Your task to perform on an android device: turn pop-ups off in chrome Image 0: 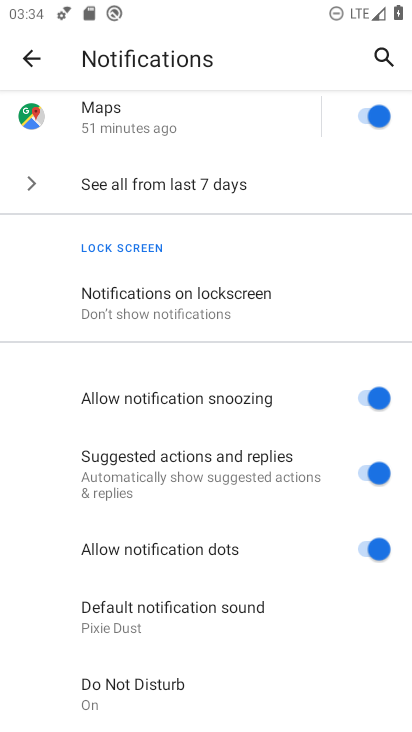
Step 0: press home button
Your task to perform on an android device: turn pop-ups off in chrome Image 1: 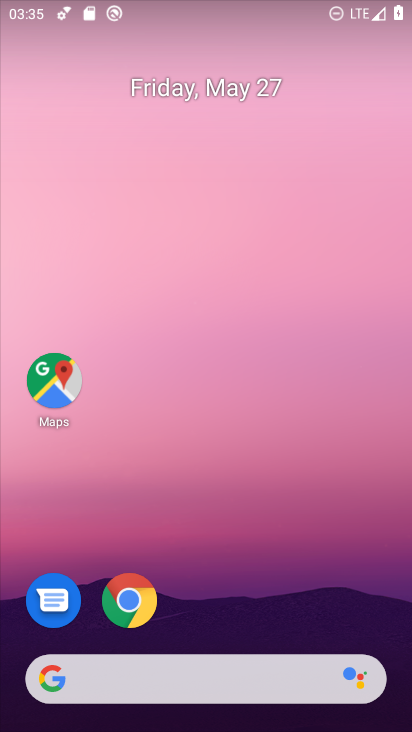
Step 1: click (129, 602)
Your task to perform on an android device: turn pop-ups off in chrome Image 2: 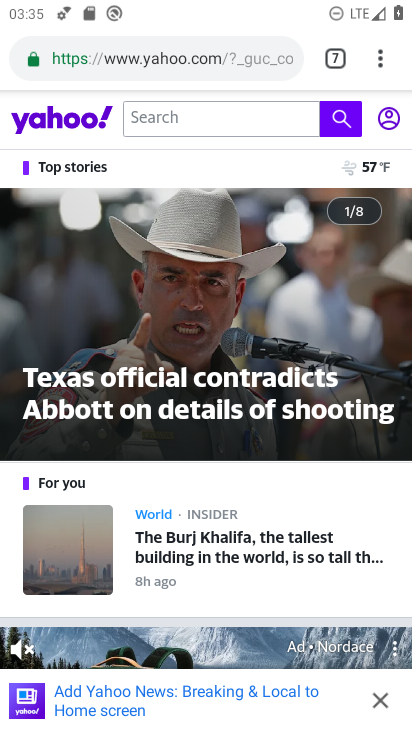
Step 2: click (379, 65)
Your task to perform on an android device: turn pop-ups off in chrome Image 3: 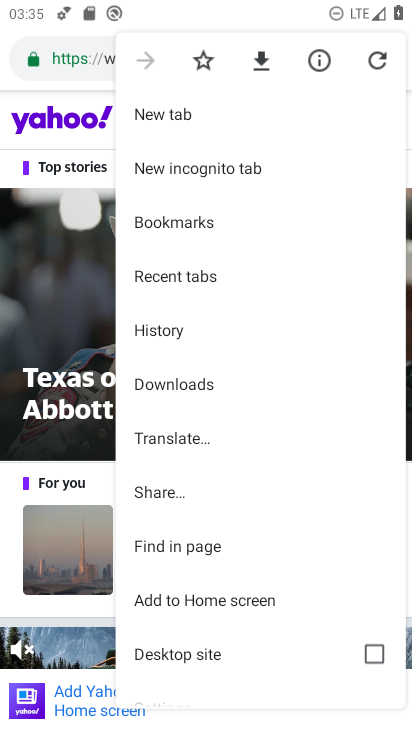
Step 3: drag from (204, 669) to (201, 220)
Your task to perform on an android device: turn pop-ups off in chrome Image 4: 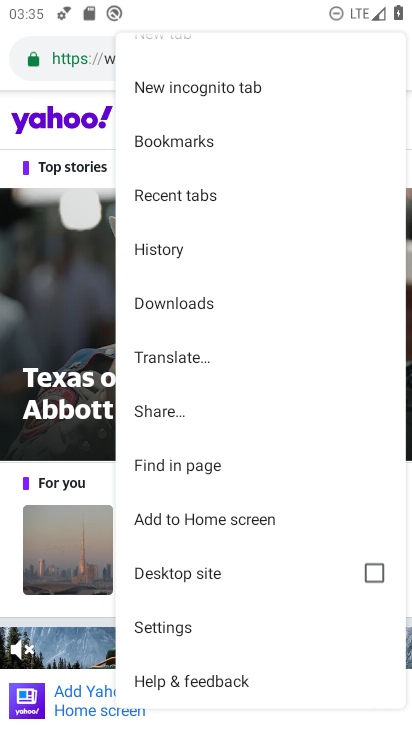
Step 4: click (167, 627)
Your task to perform on an android device: turn pop-ups off in chrome Image 5: 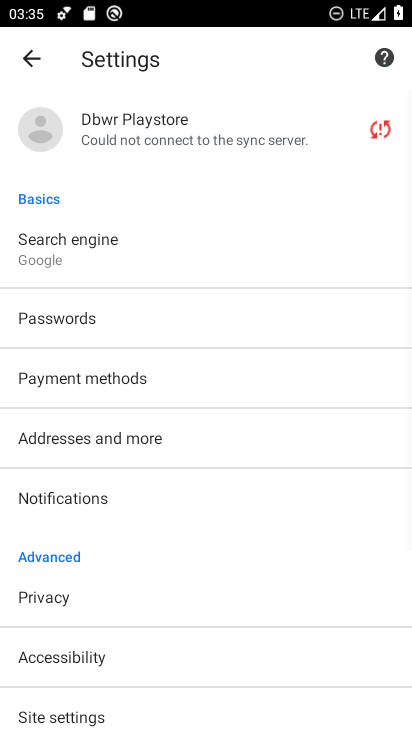
Step 5: drag from (147, 677) to (158, 433)
Your task to perform on an android device: turn pop-ups off in chrome Image 6: 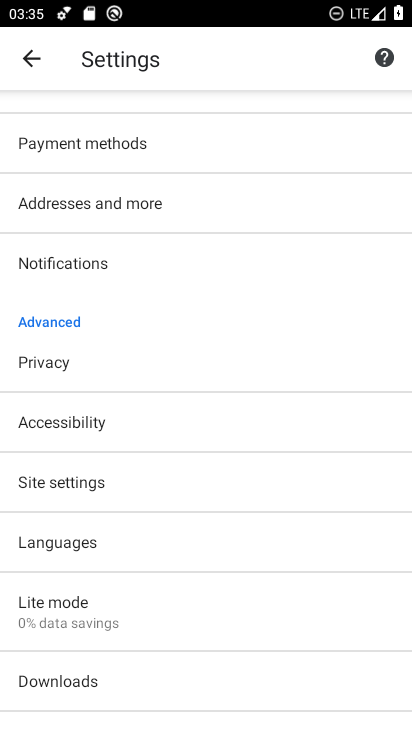
Step 6: click (84, 480)
Your task to perform on an android device: turn pop-ups off in chrome Image 7: 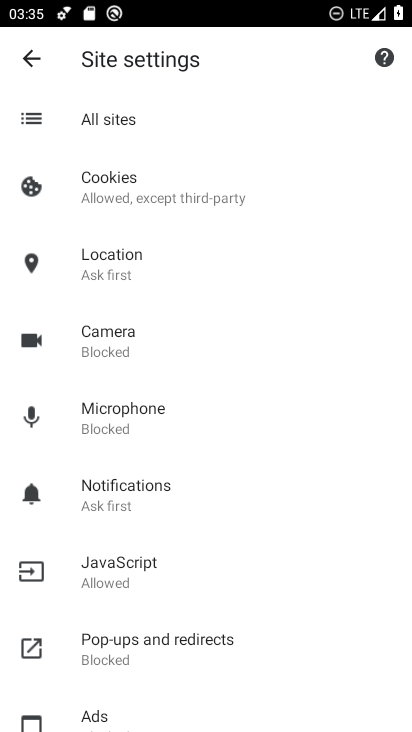
Step 7: click (118, 641)
Your task to perform on an android device: turn pop-ups off in chrome Image 8: 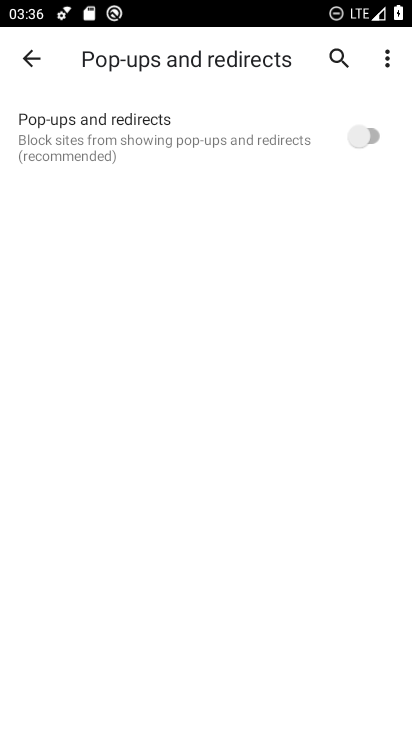
Step 8: task complete